Your task to perform on an android device: Search for flights from Mexico city to Sydney Image 0: 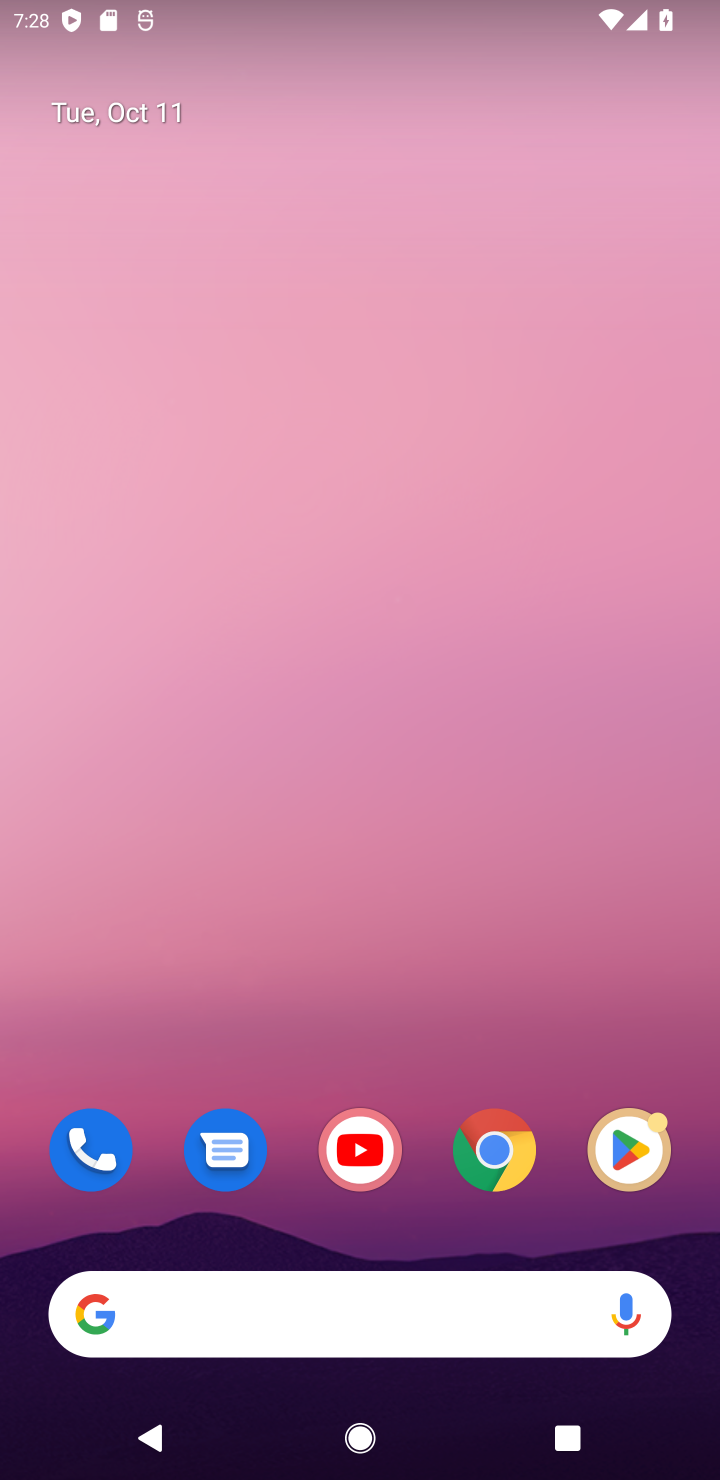
Step 0: click (499, 1161)
Your task to perform on an android device: Search for flights from Mexico city to Sydney Image 1: 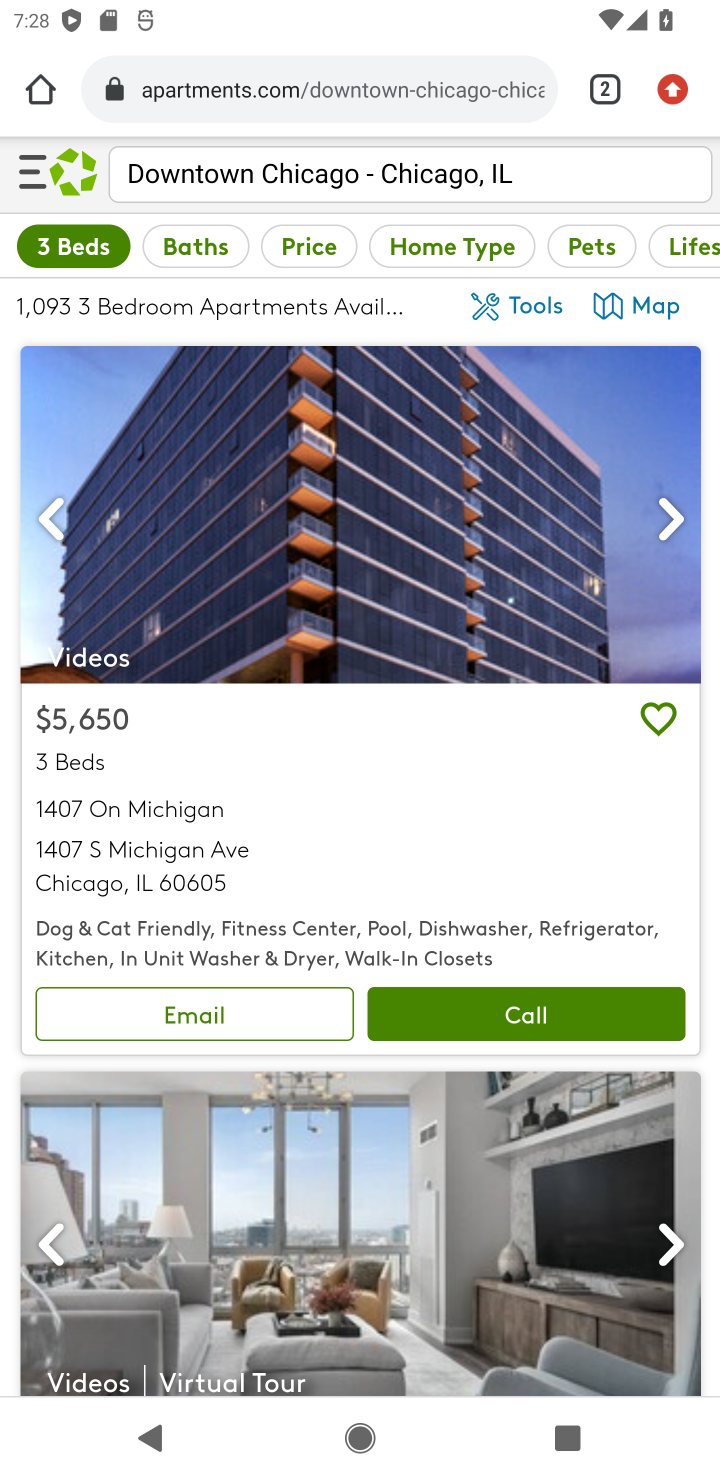
Step 1: click (358, 93)
Your task to perform on an android device: Search for flights from Mexico city to Sydney Image 2: 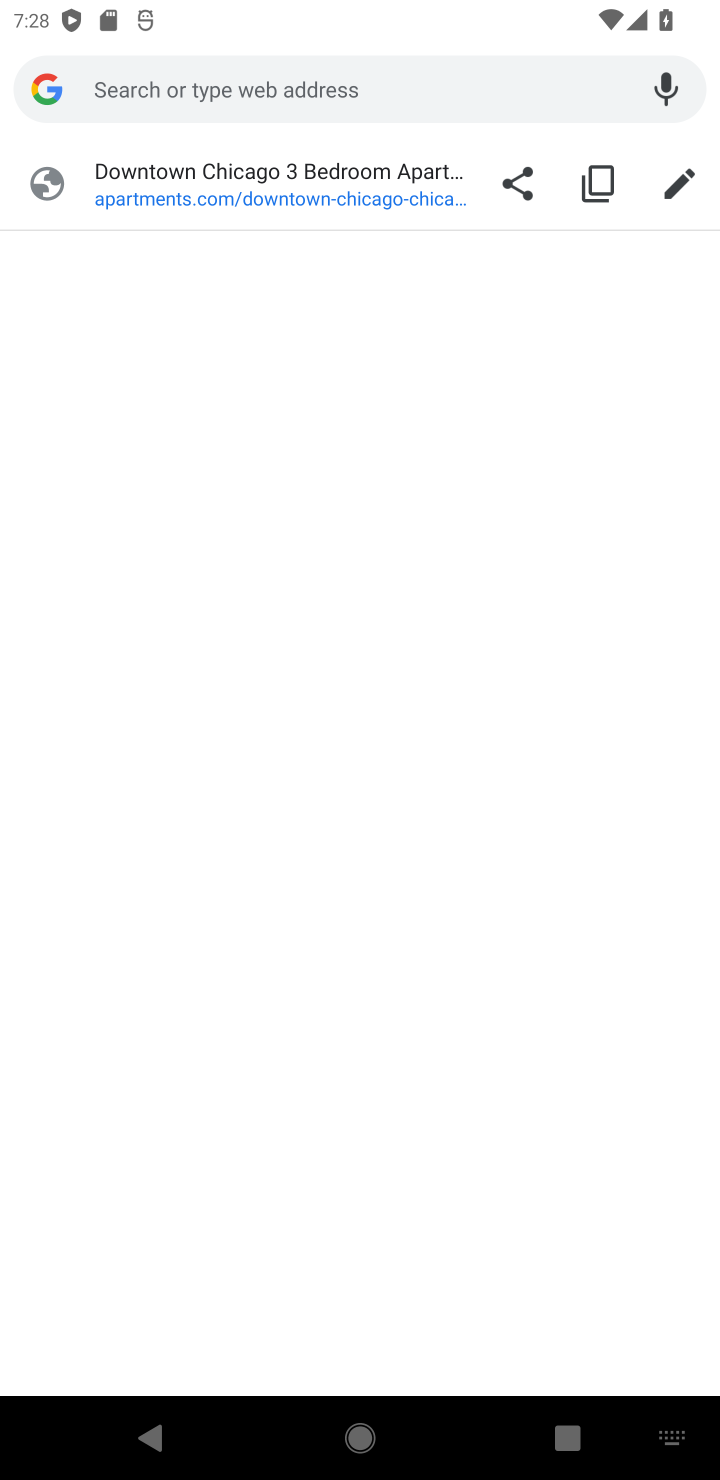
Step 2: type "Mexico city to Sydney flights"
Your task to perform on an android device: Search for flights from Mexico city to Sydney Image 3: 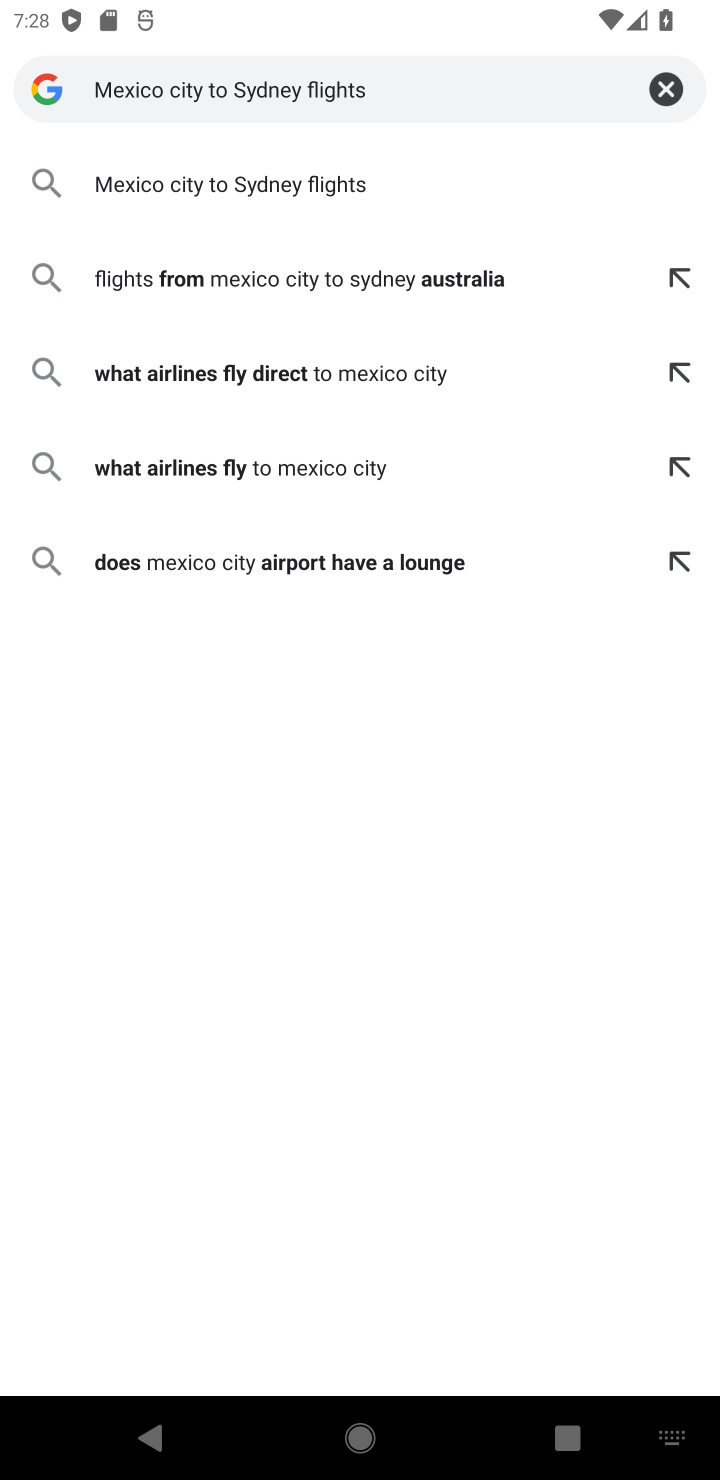
Step 3: click (241, 186)
Your task to perform on an android device: Search for flights from Mexico city to Sydney Image 4: 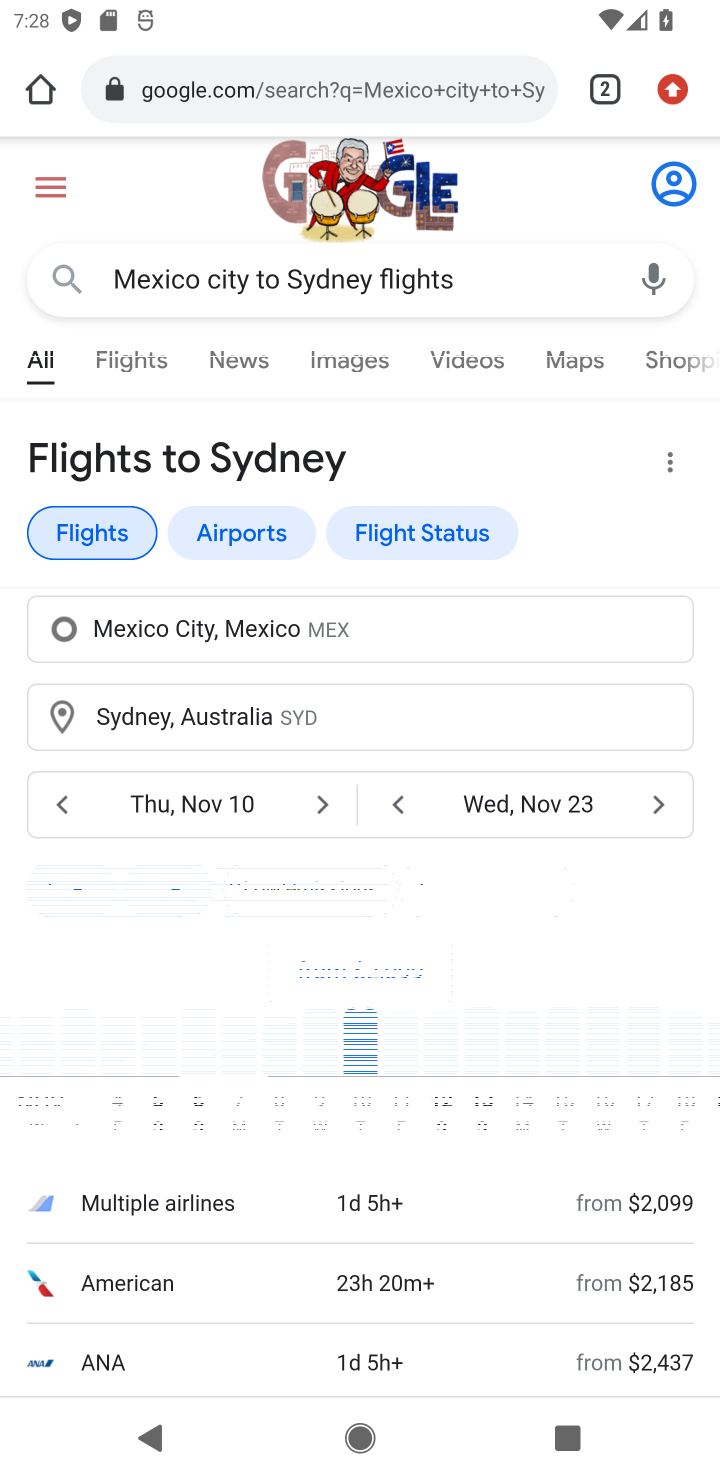
Step 4: click (126, 372)
Your task to perform on an android device: Search for flights from Mexico city to Sydney Image 5: 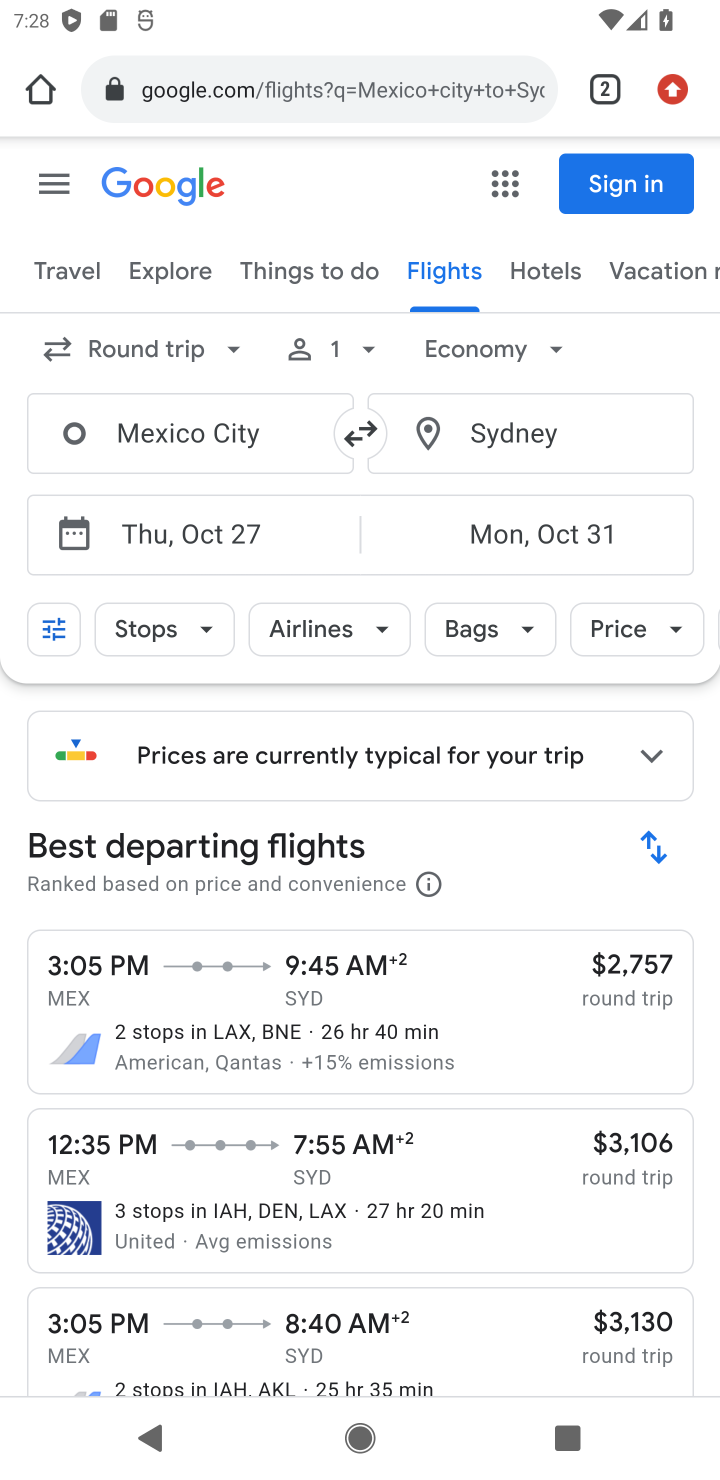
Step 5: task complete